Your task to perform on an android device: turn smart compose on in the gmail app Image 0: 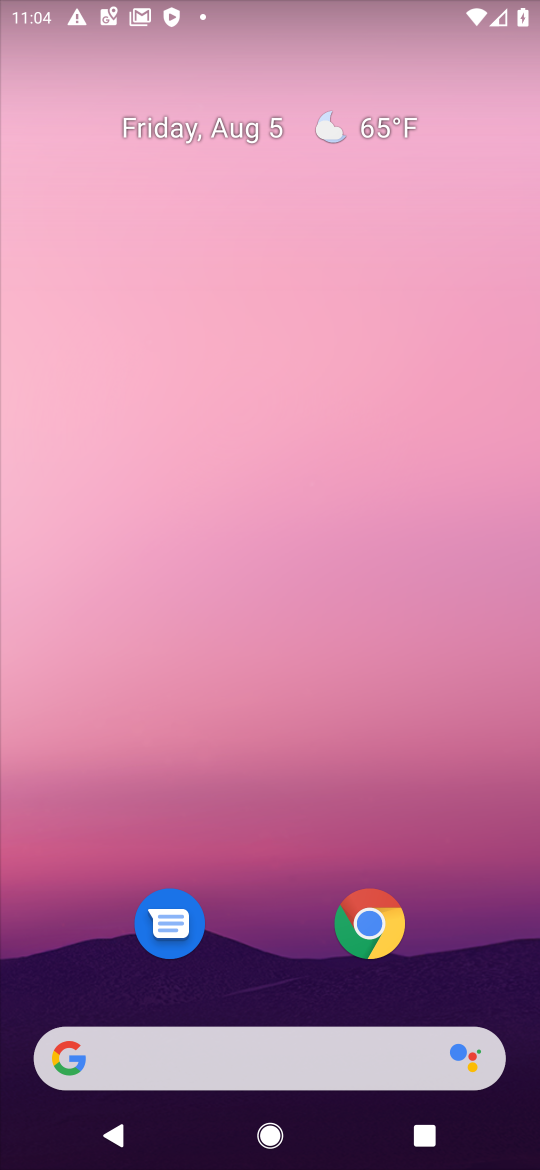
Step 0: drag from (303, 1054) to (393, 142)
Your task to perform on an android device: turn smart compose on in the gmail app Image 1: 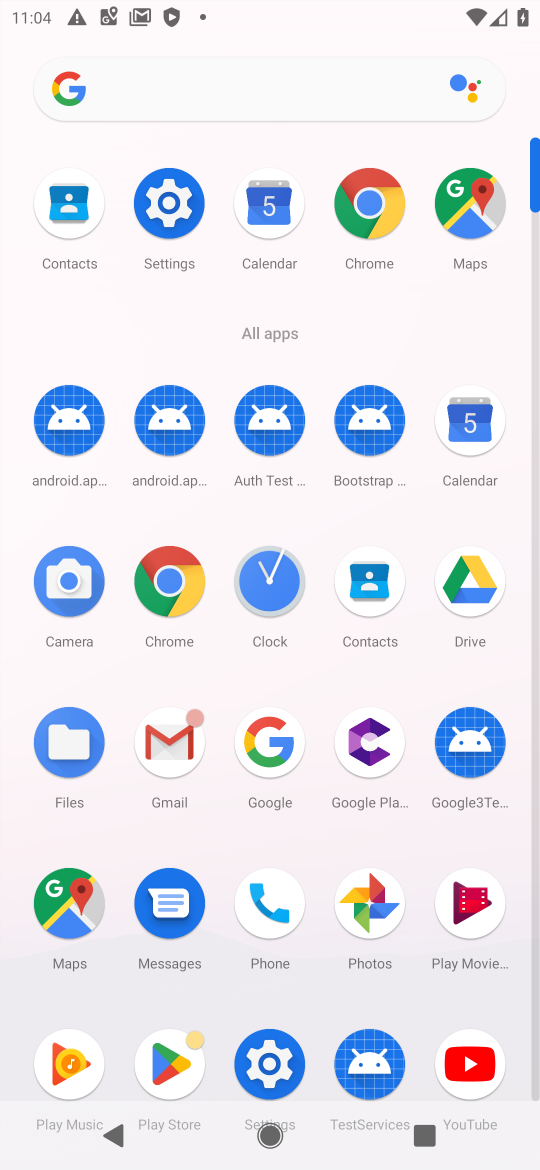
Step 1: click (160, 764)
Your task to perform on an android device: turn smart compose on in the gmail app Image 2: 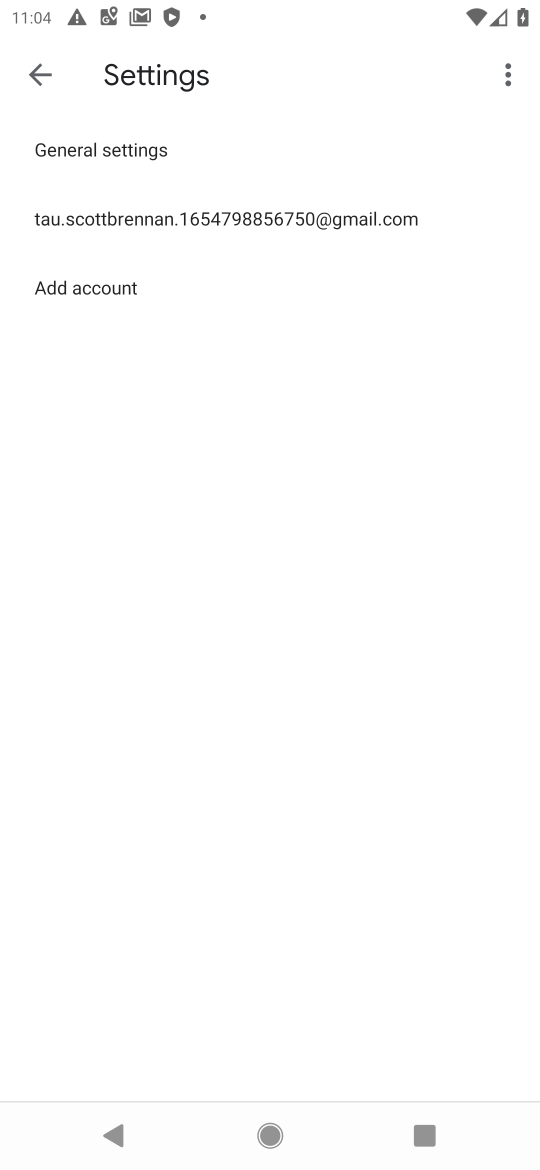
Step 2: click (268, 228)
Your task to perform on an android device: turn smart compose on in the gmail app Image 3: 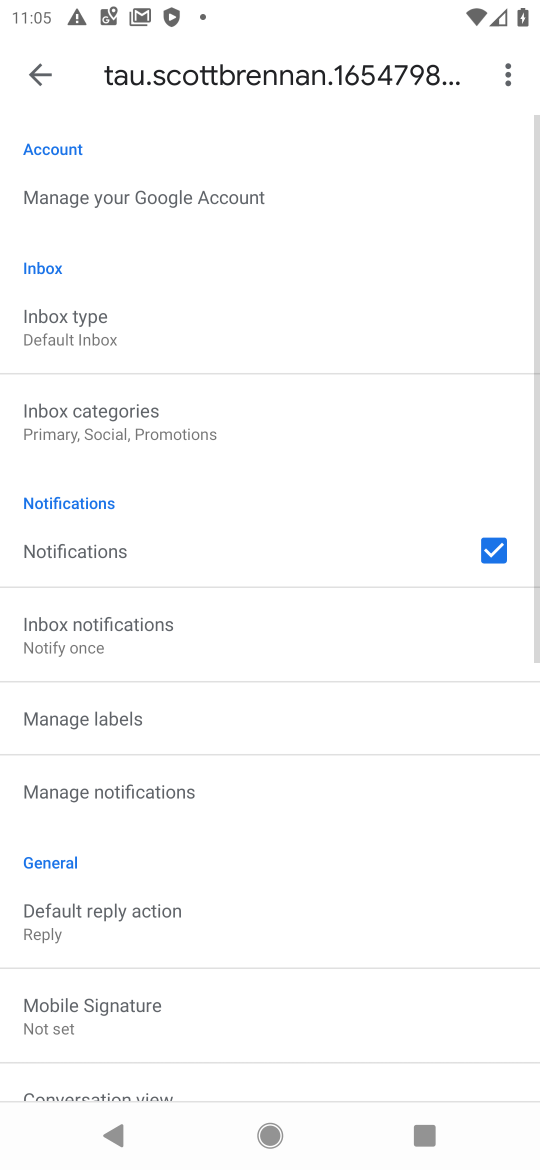
Step 3: task complete